Your task to perform on an android device: Clear all items from cart on bestbuy.com. Search for razer blackwidow on bestbuy.com, select the first entry, add it to the cart, then select checkout. Image 0: 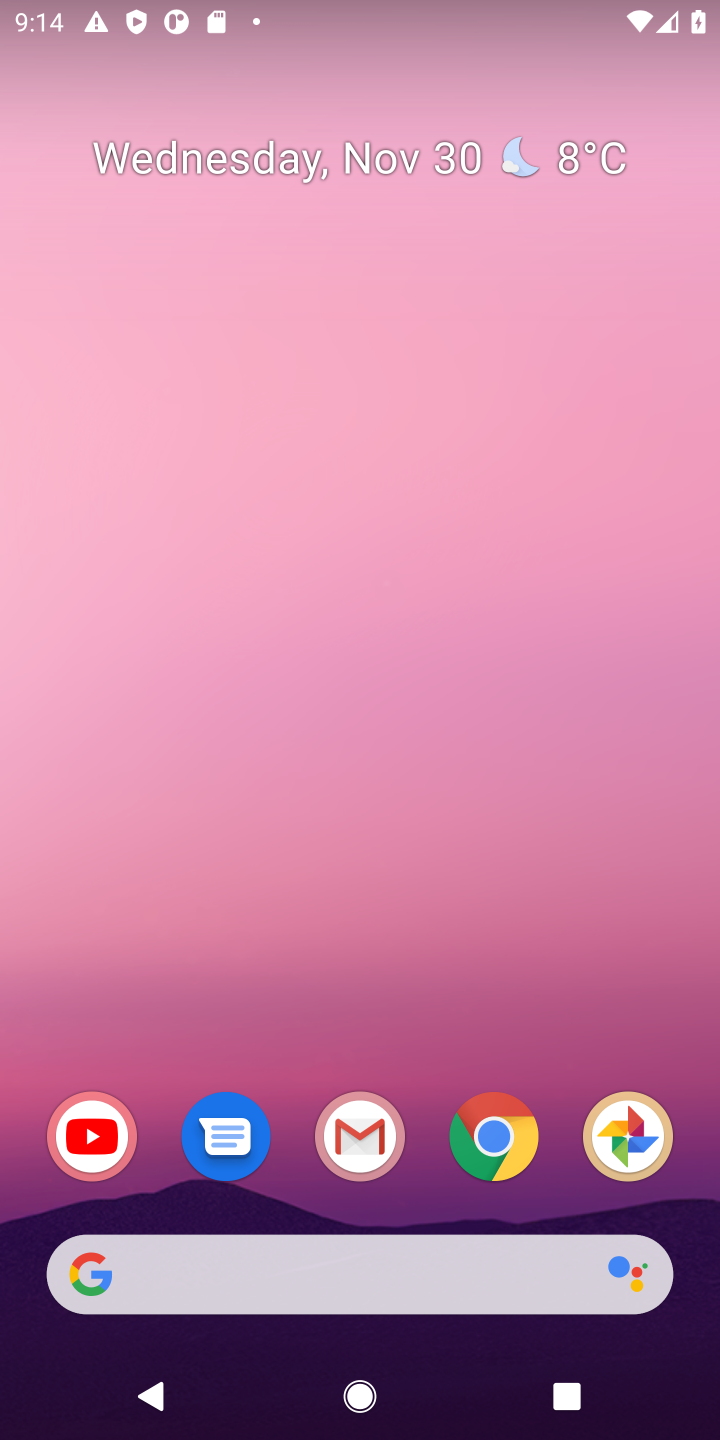
Step 0: click (495, 1144)
Your task to perform on an android device: Clear all items from cart on bestbuy.com. Search for razer blackwidow on bestbuy.com, select the first entry, add it to the cart, then select checkout. Image 1: 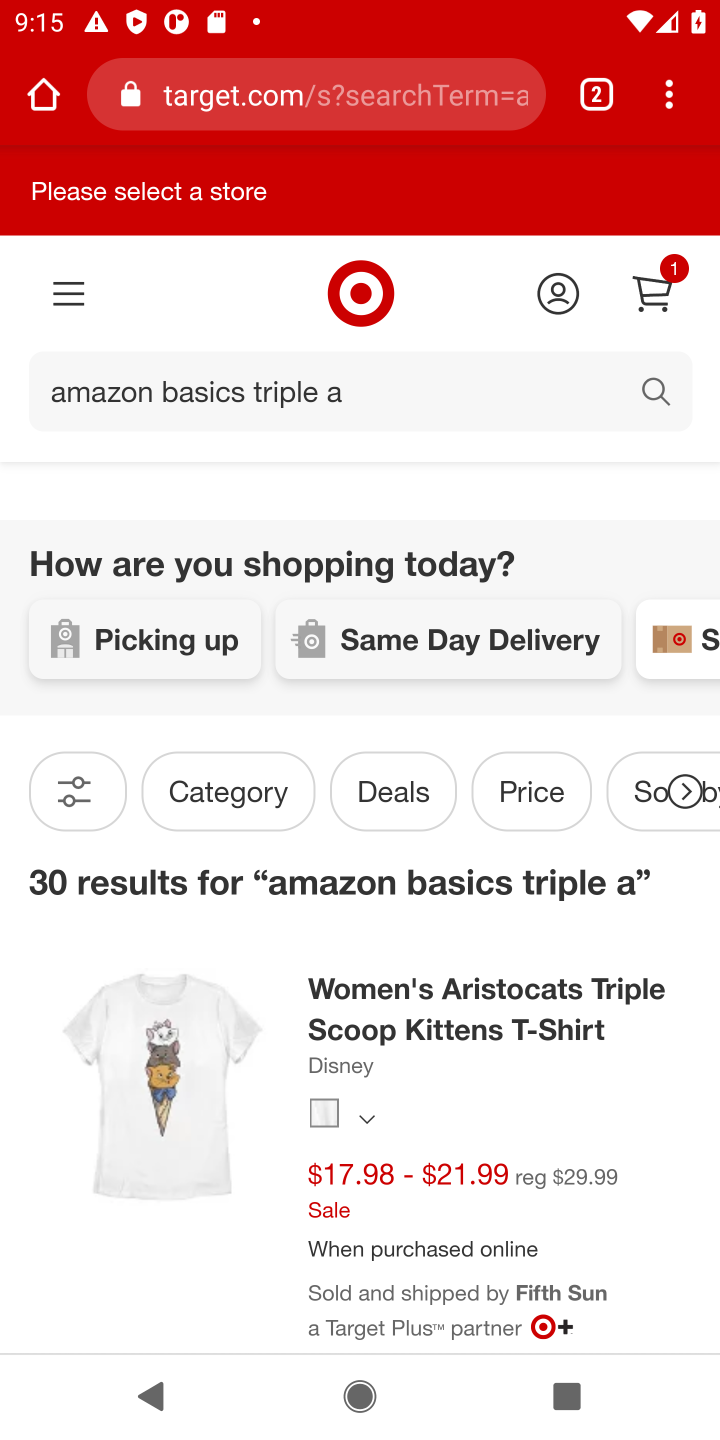
Step 1: click (353, 100)
Your task to perform on an android device: Clear all items from cart on bestbuy.com. Search for razer blackwidow on bestbuy.com, select the first entry, add it to the cart, then select checkout. Image 2: 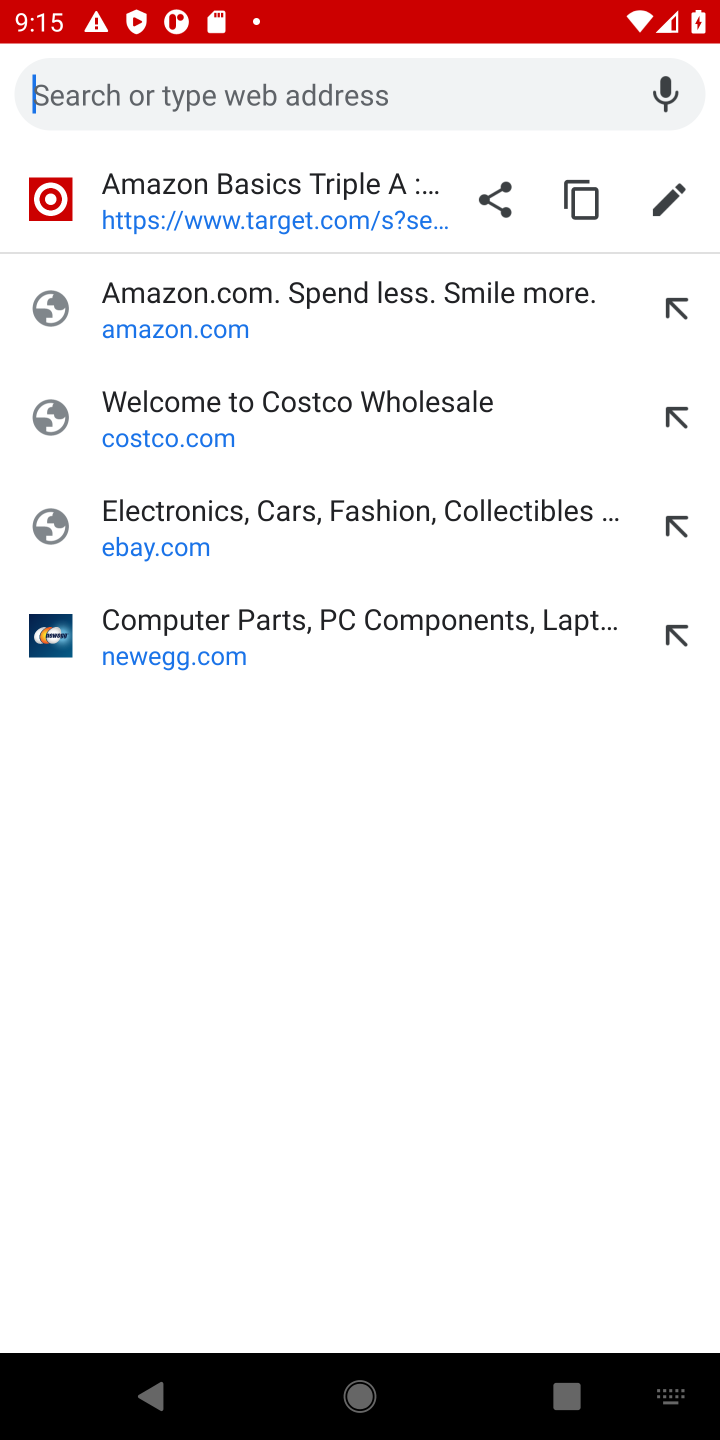
Step 2: type "bestbuy.com"
Your task to perform on an android device: Clear all items from cart on bestbuy.com. Search for razer blackwidow on bestbuy.com, select the first entry, add it to the cart, then select checkout. Image 3: 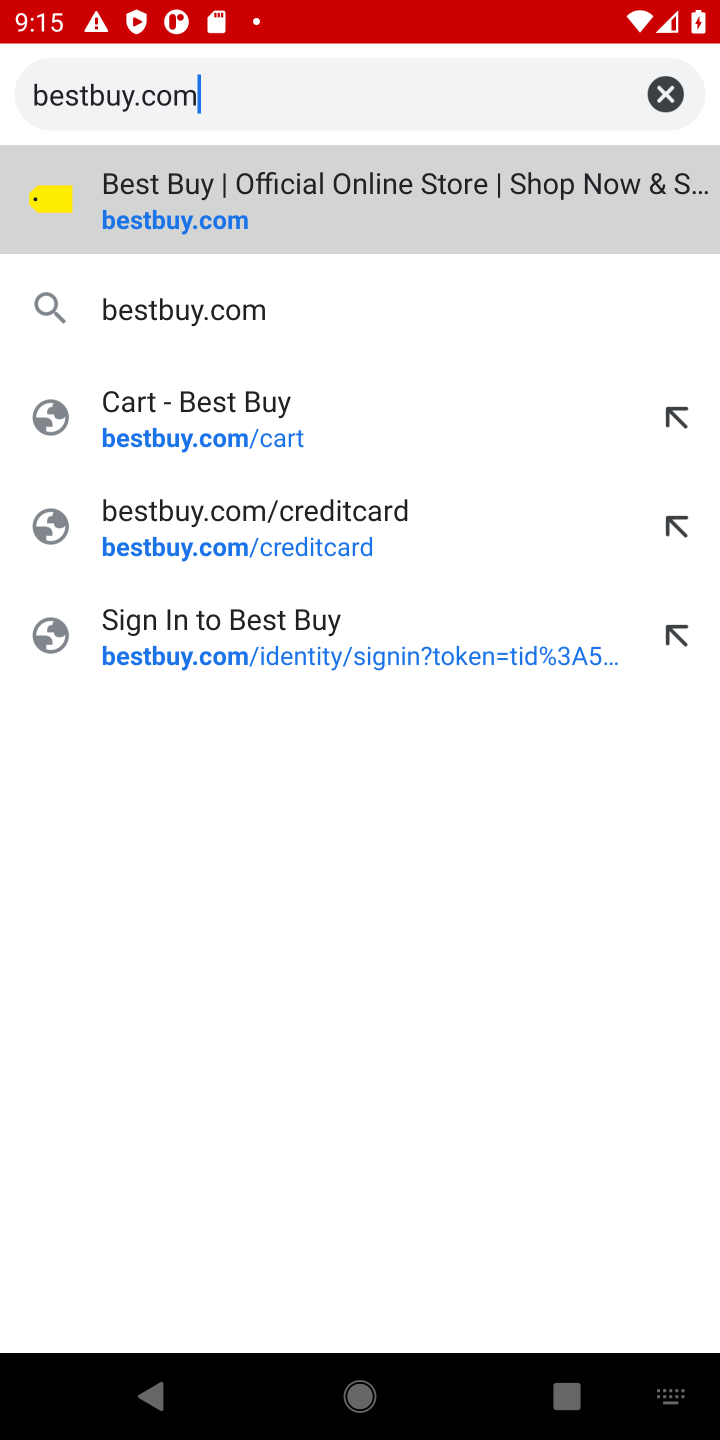
Step 3: click (200, 229)
Your task to perform on an android device: Clear all items from cart on bestbuy.com. Search for razer blackwidow on bestbuy.com, select the first entry, add it to the cart, then select checkout. Image 4: 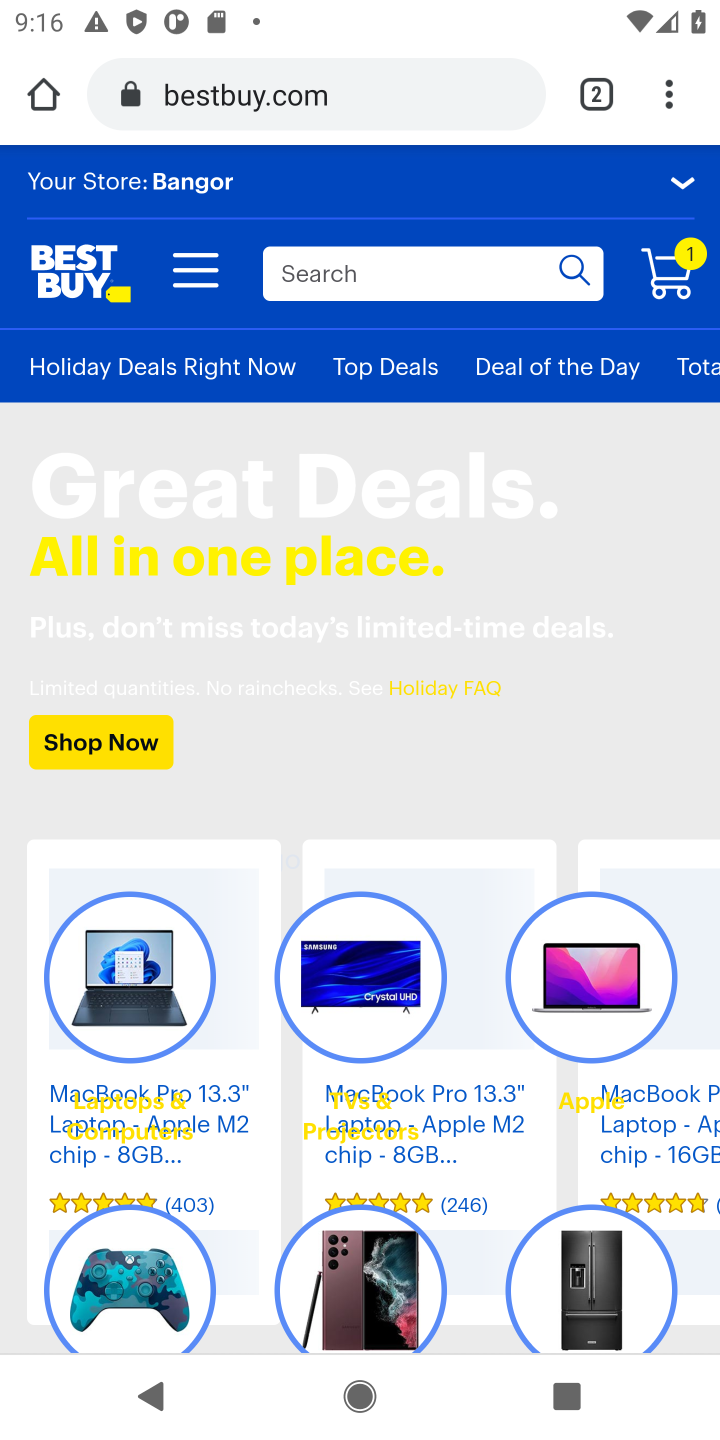
Step 4: click (668, 287)
Your task to perform on an android device: Clear all items from cart on bestbuy.com. Search for razer blackwidow on bestbuy.com, select the first entry, add it to the cart, then select checkout. Image 5: 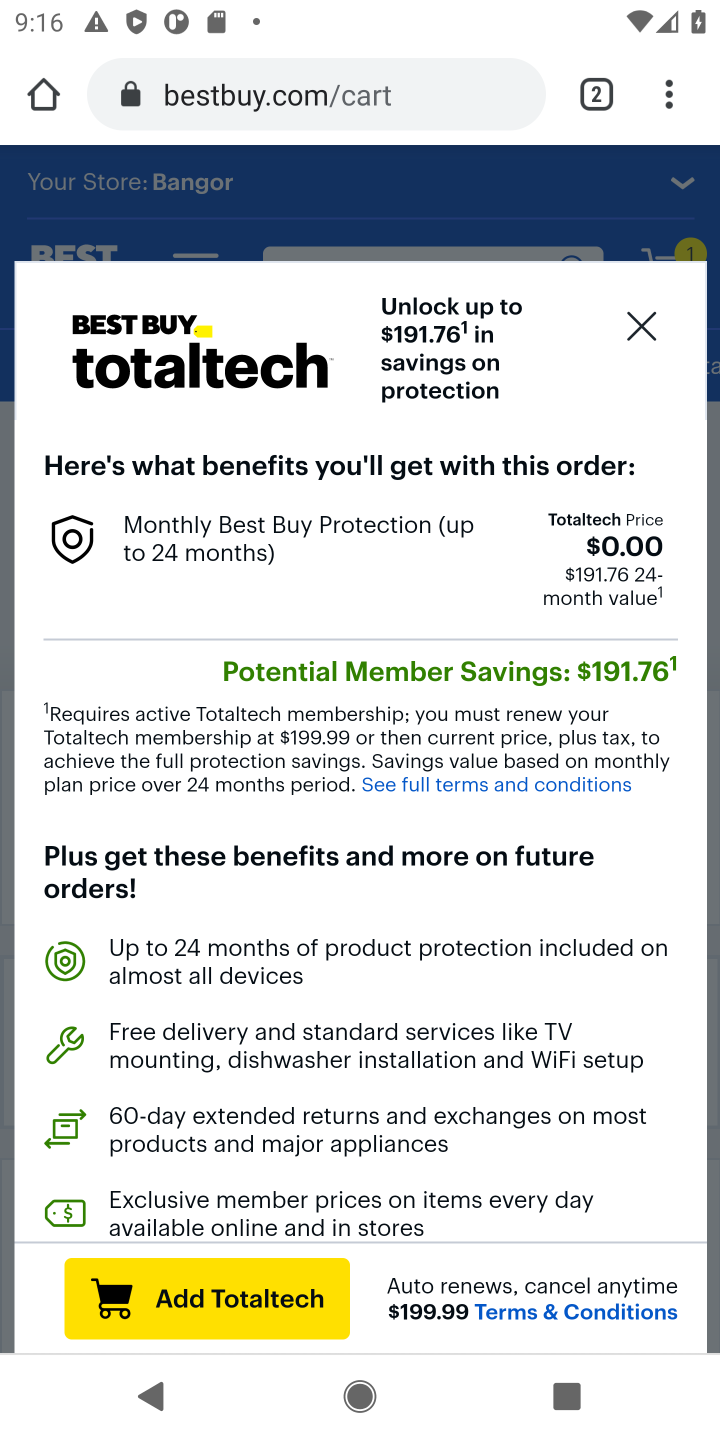
Step 5: click (643, 324)
Your task to perform on an android device: Clear all items from cart on bestbuy.com. Search for razer blackwidow on bestbuy.com, select the first entry, add it to the cart, then select checkout. Image 6: 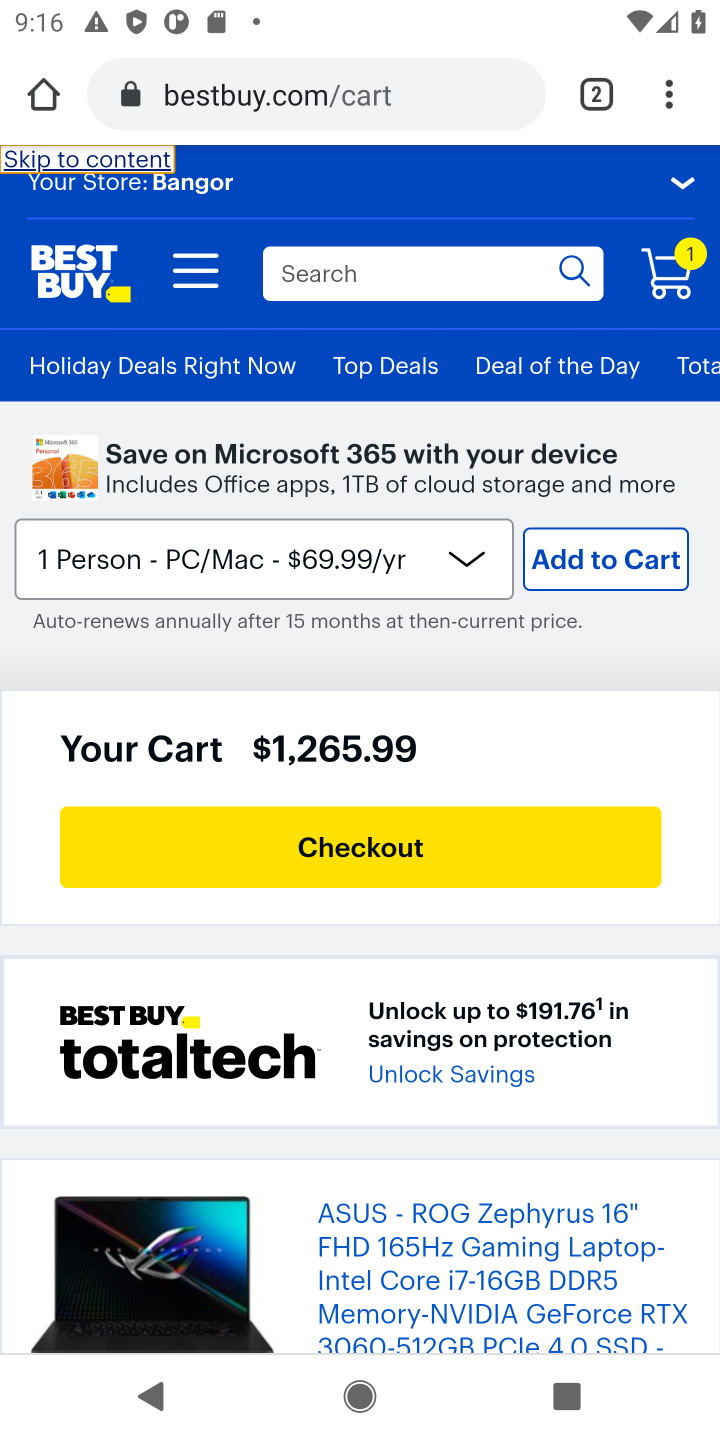
Step 6: drag from (525, 864) to (554, 269)
Your task to perform on an android device: Clear all items from cart on bestbuy.com. Search for razer blackwidow on bestbuy.com, select the first entry, add it to the cart, then select checkout. Image 7: 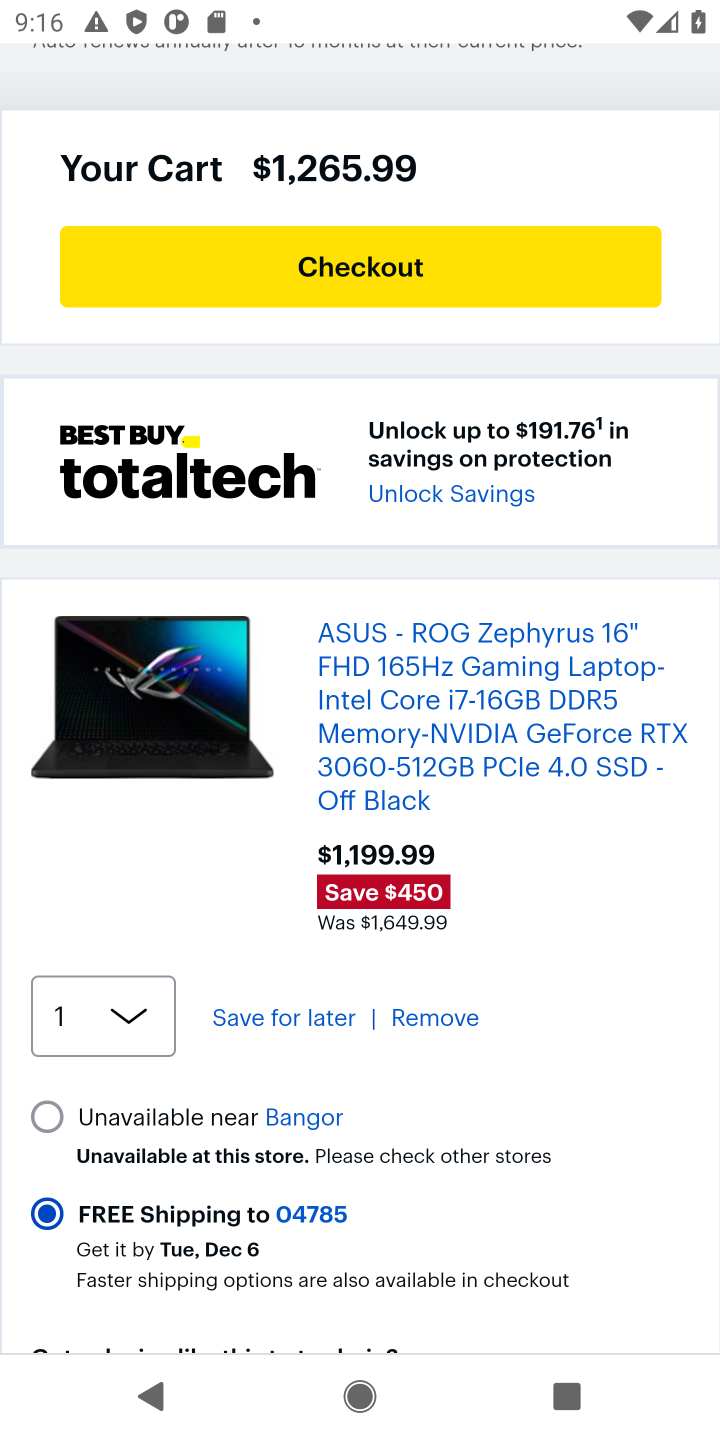
Step 7: click (426, 1015)
Your task to perform on an android device: Clear all items from cart on bestbuy.com. Search for razer blackwidow on bestbuy.com, select the first entry, add it to the cart, then select checkout. Image 8: 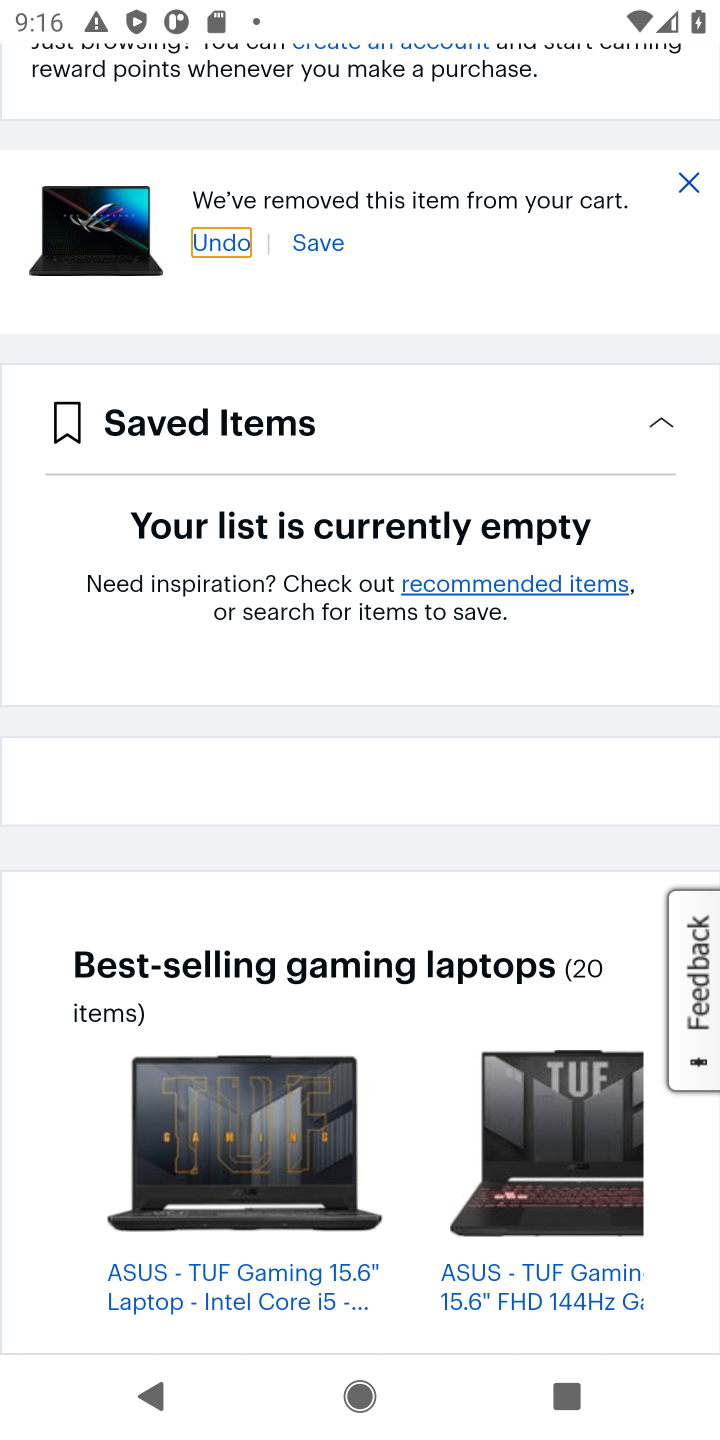
Step 8: drag from (449, 495) to (416, 794)
Your task to perform on an android device: Clear all items from cart on bestbuy.com. Search for razer blackwidow on bestbuy.com, select the first entry, add it to the cart, then select checkout. Image 9: 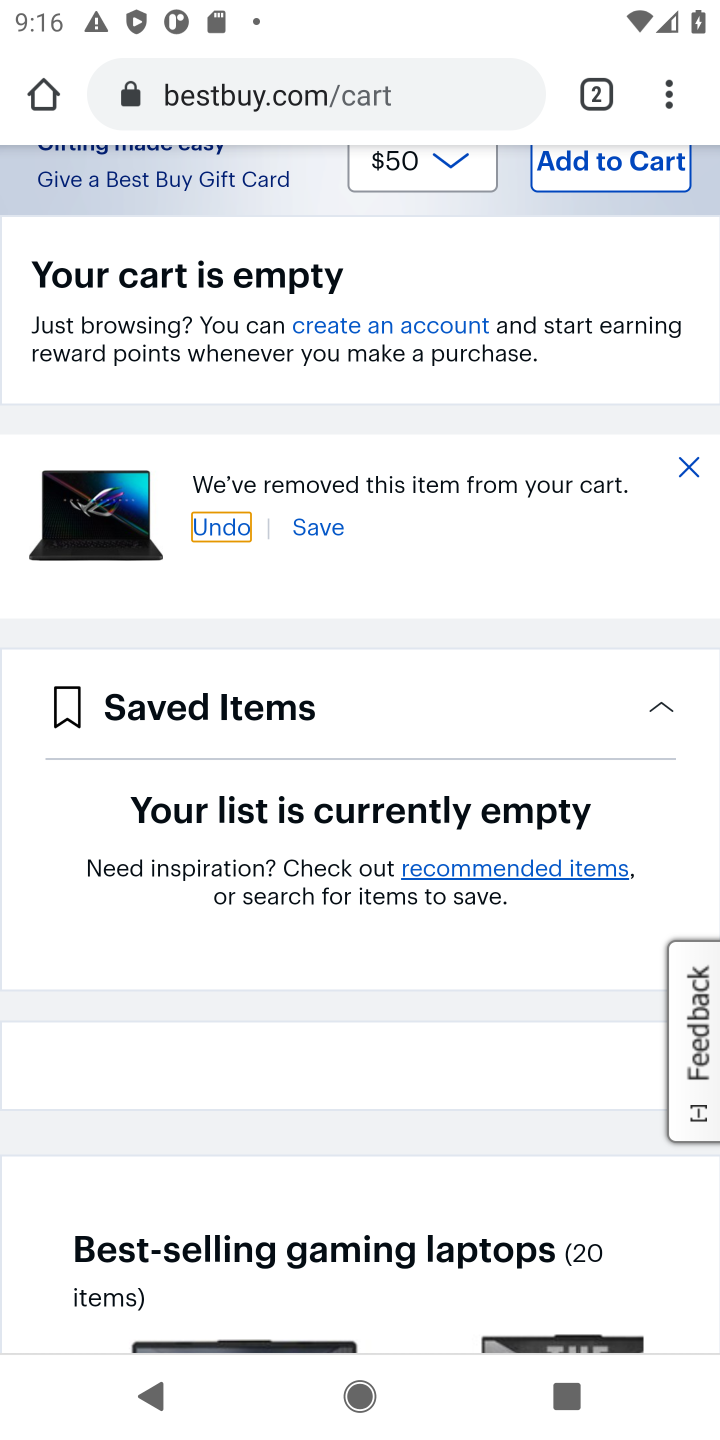
Step 9: drag from (357, 443) to (308, 816)
Your task to perform on an android device: Clear all items from cart on bestbuy.com. Search for razer blackwidow on bestbuy.com, select the first entry, add it to the cart, then select checkout. Image 10: 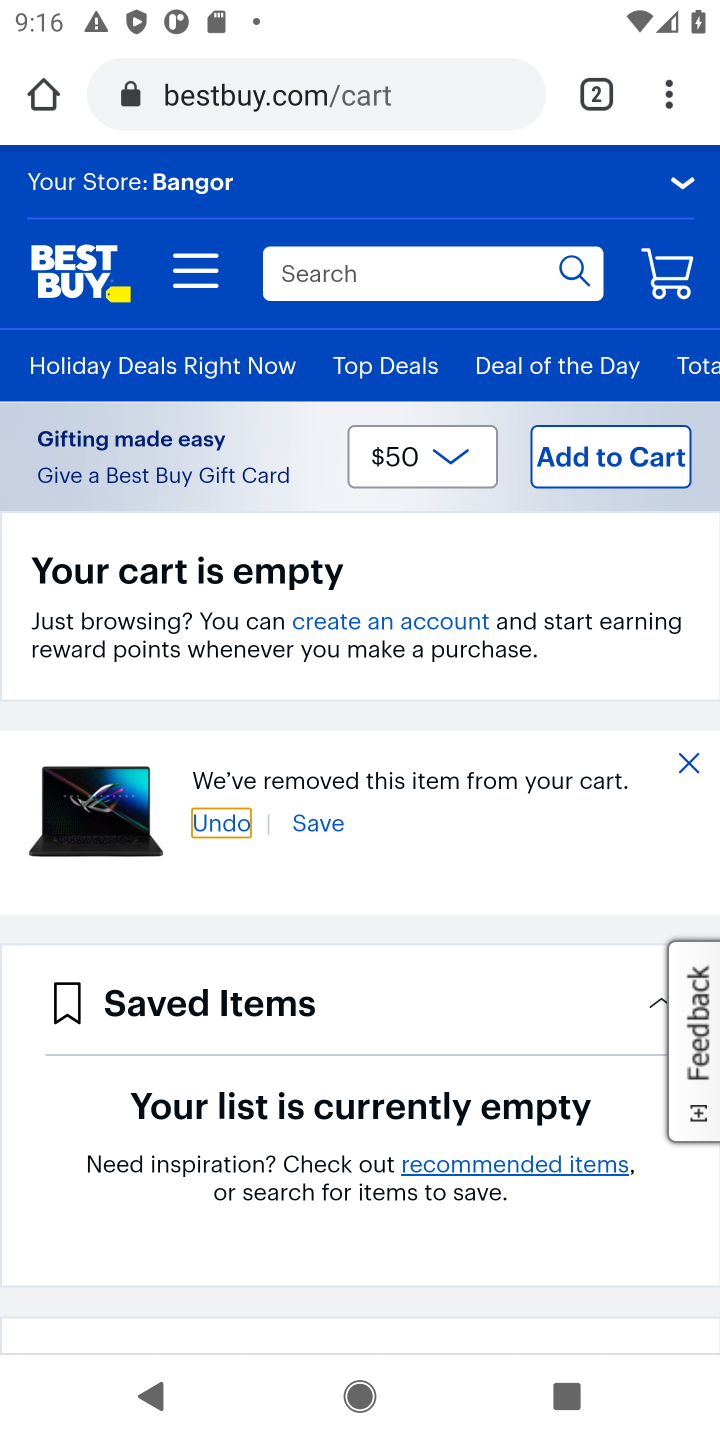
Step 10: click (294, 276)
Your task to perform on an android device: Clear all items from cart on bestbuy.com. Search for razer blackwidow on bestbuy.com, select the first entry, add it to the cart, then select checkout. Image 11: 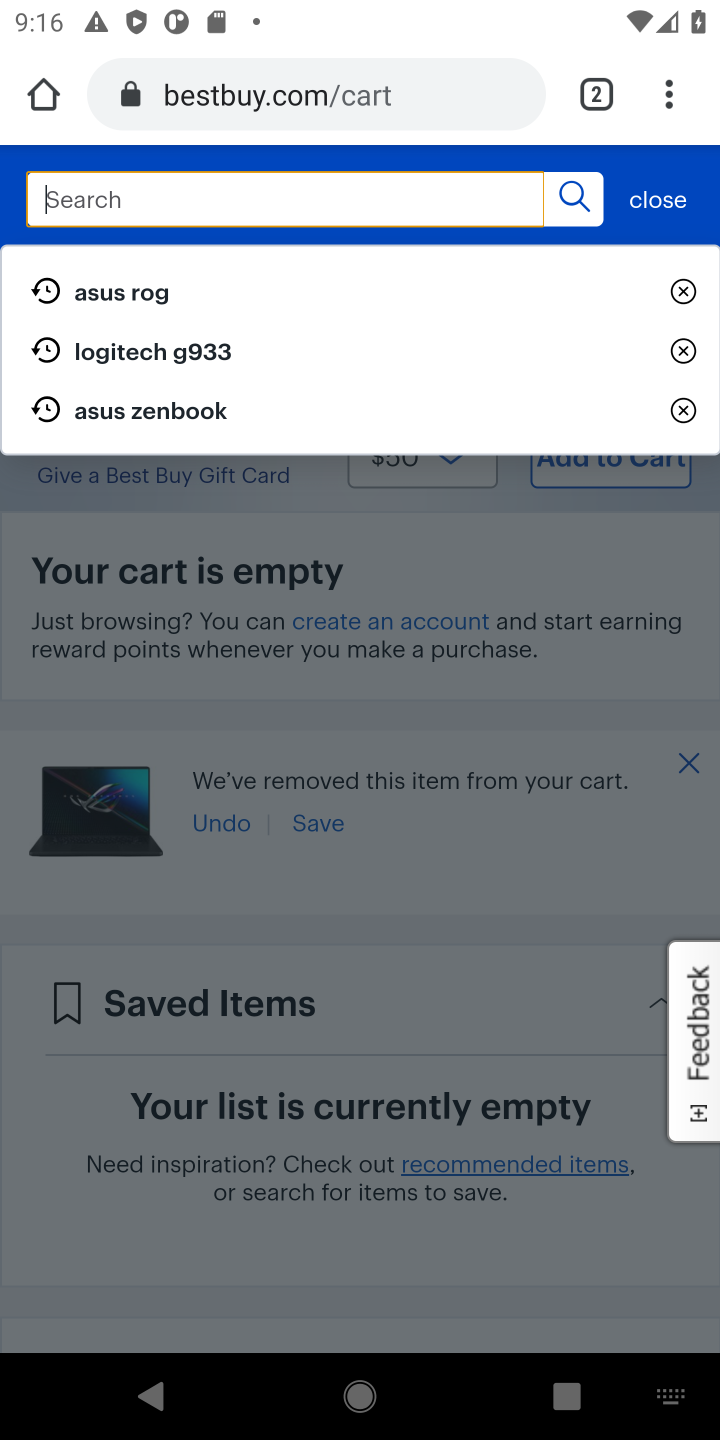
Step 11: type "razer blackwidow "
Your task to perform on an android device: Clear all items from cart on bestbuy.com. Search for razer blackwidow on bestbuy.com, select the first entry, add it to the cart, then select checkout. Image 12: 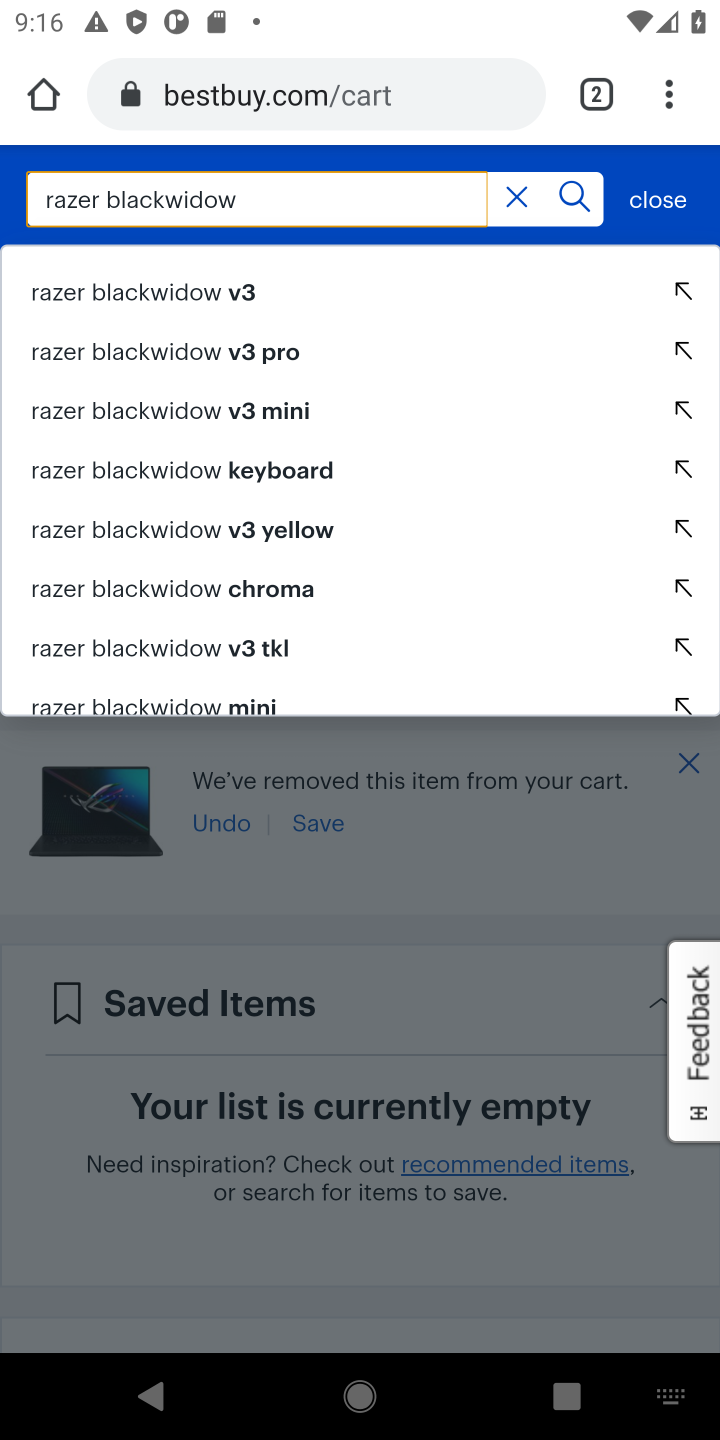
Step 12: click (567, 203)
Your task to perform on an android device: Clear all items from cart on bestbuy.com. Search for razer blackwidow on bestbuy.com, select the first entry, add it to the cart, then select checkout. Image 13: 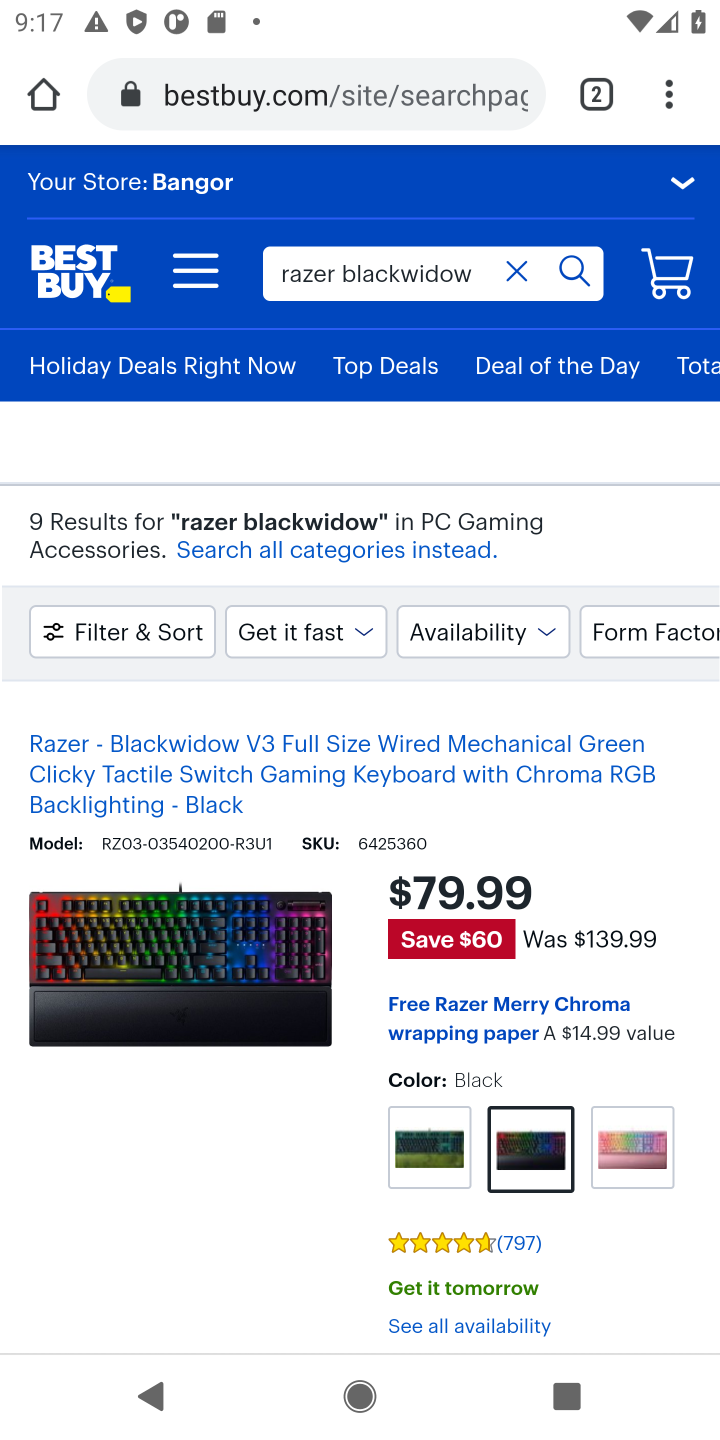
Step 13: drag from (321, 1064) to (338, 759)
Your task to perform on an android device: Clear all items from cart on bestbuy.com. Search for razer blackwidow on bestbuy.com, select the first entry, add it to the cart, then select checkout. Image 14: 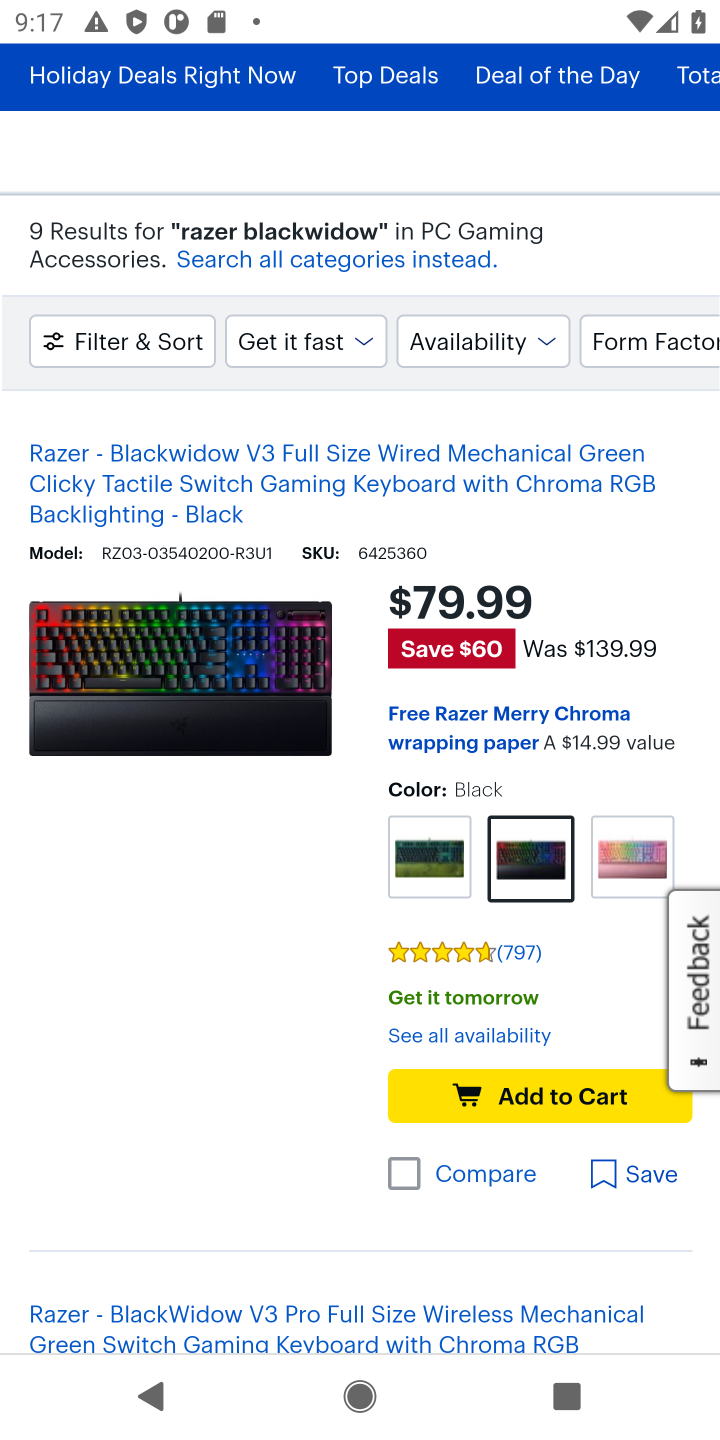
Step 14: click (502, 1103)
Your task to perform on an android device: Clear all items from cart on bestbuy.com. Search for razer blackwidow on bestbuy.com, select the first entry, add it to the cart, then select checkout. Image 15: 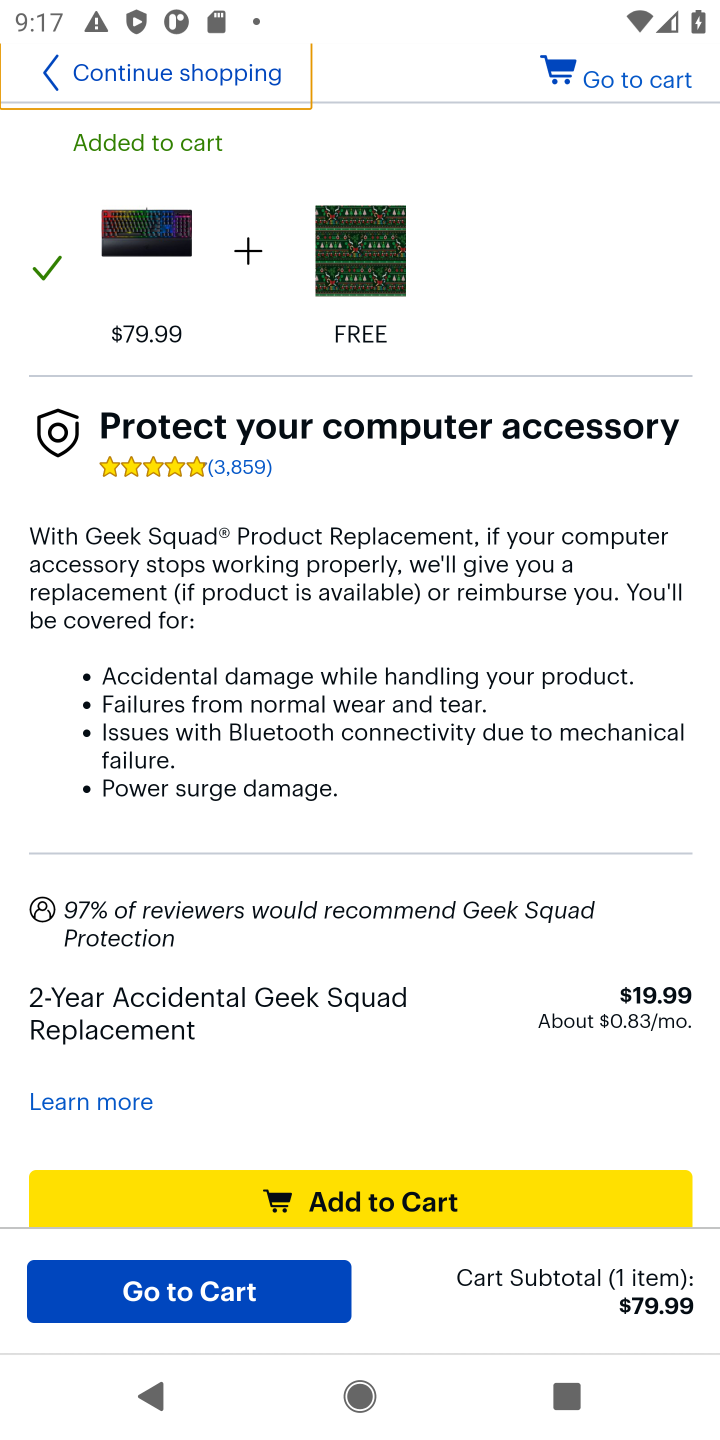
Step 15: click (628, 79)
Your task to perform on an android device: Clear all items from cart on bestbuy.com. Search for razer blackwidow on bestbuy.com, select the first entry, add it to the cart, then select checkout. Image 16: 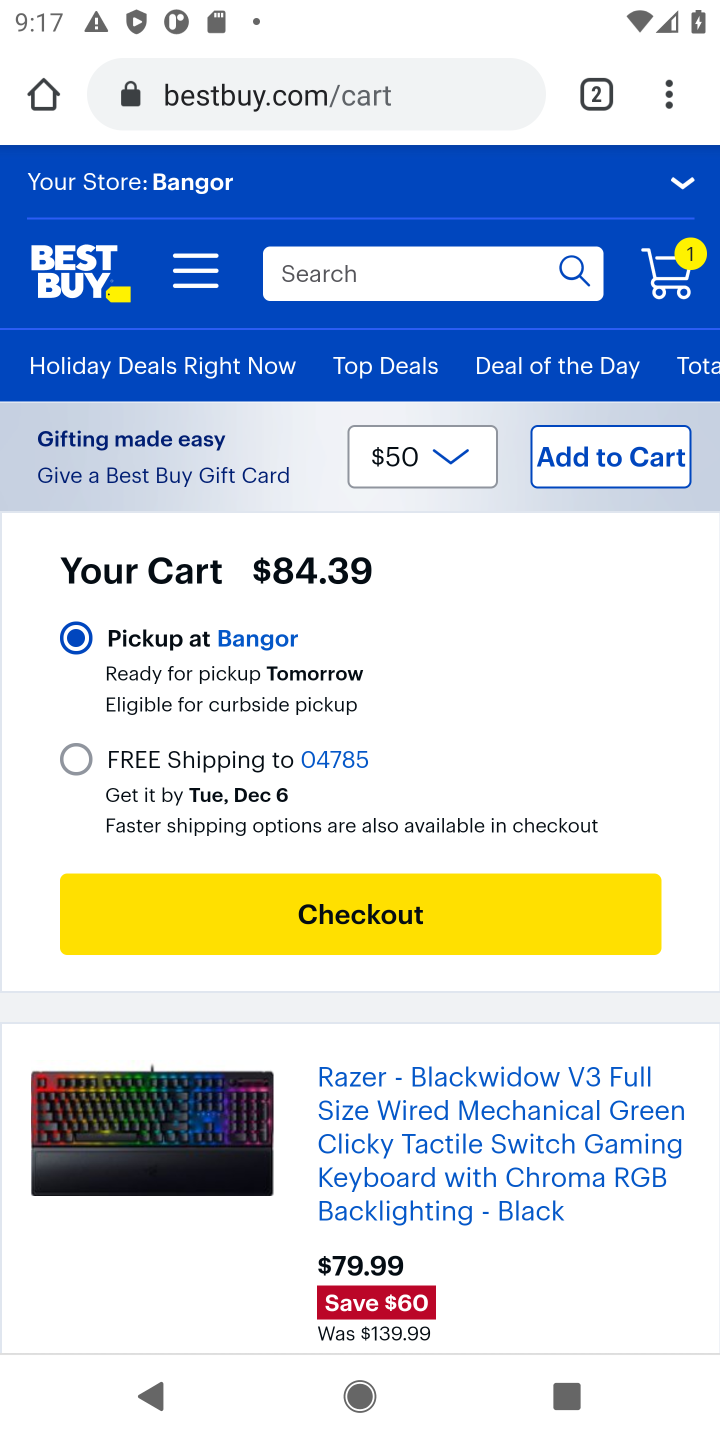
Step 16: click (384, 906)
Your task to perform on an android device: Clear all items from cart on bestbuy.com. Search for razer blackwidow on bestbuy.com, select the first entry, add it to the cart, then select checkout. Image 17: 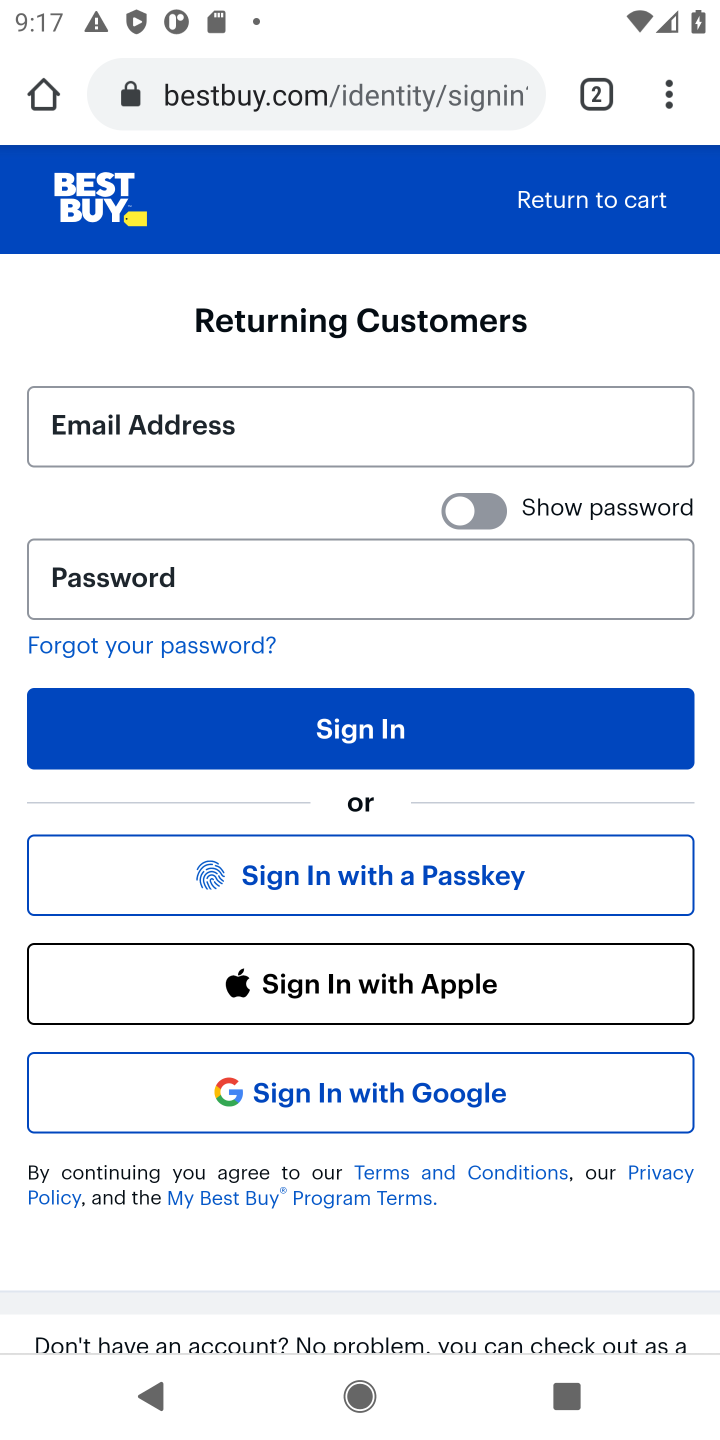
Step 17: task complete